Your task to perform on an android device: Go to Wikipedia Image 0: 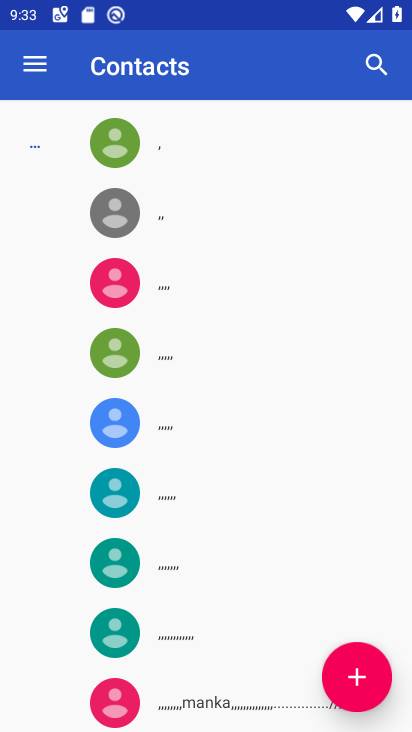
Step 0: press home button
Your task to perform on an android device: Go to Wikipedia Image 1: 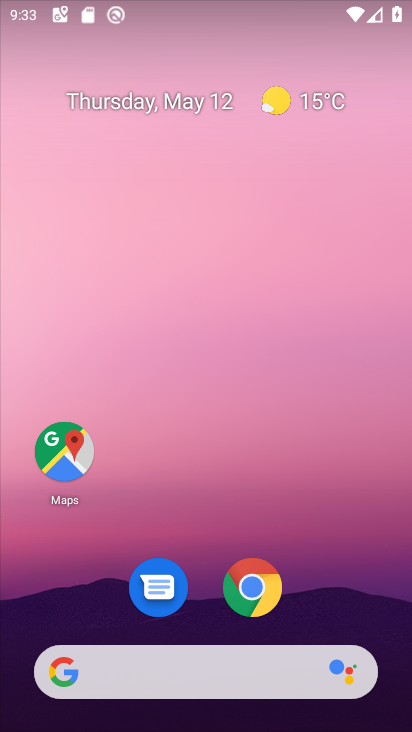
Step 1: drag from (343, 615) to (248, 27)
Your task to perform on an android device: Go to Wikipedia Image 2: 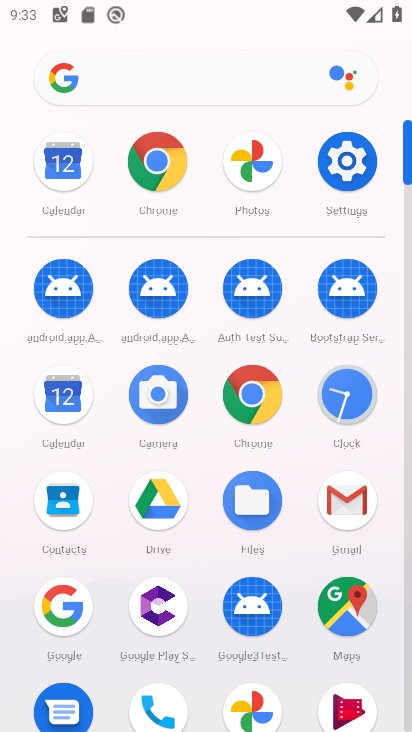
Step 2: click (152, 151)
Your task to perform on an android device: Go to Wikipedia Image 3: 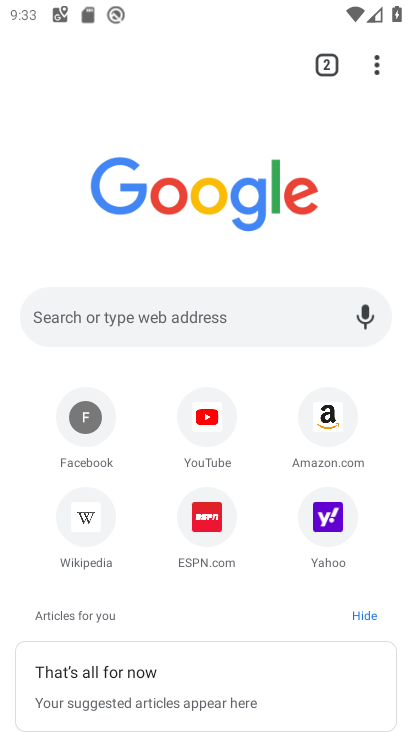
Step 3: click (98, 520)
Your task to perform on an android device: Go to Wikipedia Image 4: 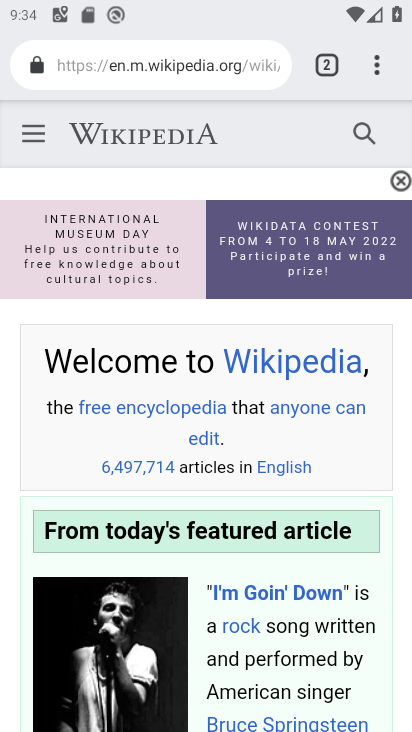
Step 4: task complete